Your task to perform on an android device: Add "dell alienware" to the cart on newegg.com, then select checkout. Image 0: 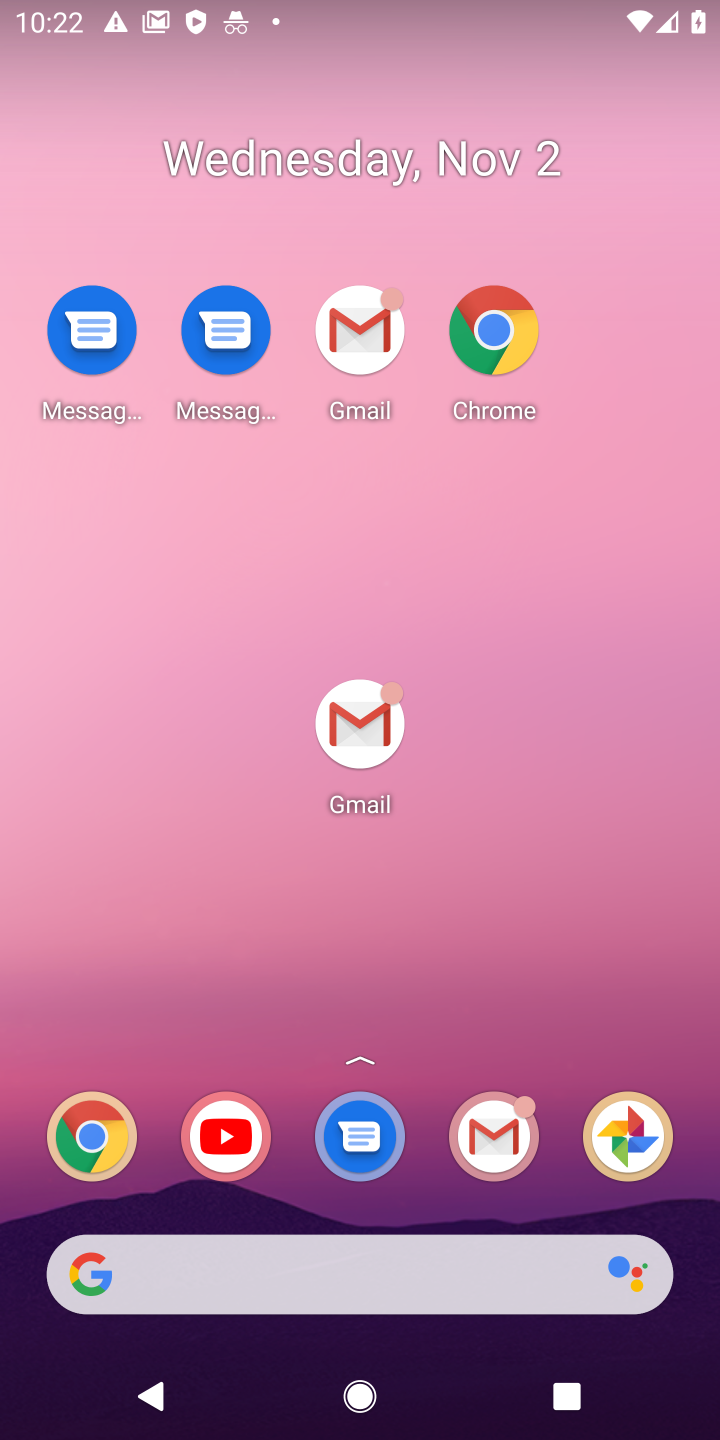
Step 0: drag from (339, 951) to (334, 176)
Your task to perform on an android device: Add "dell alienware" to the cart on newegg.com, then select checkout. Image 1: 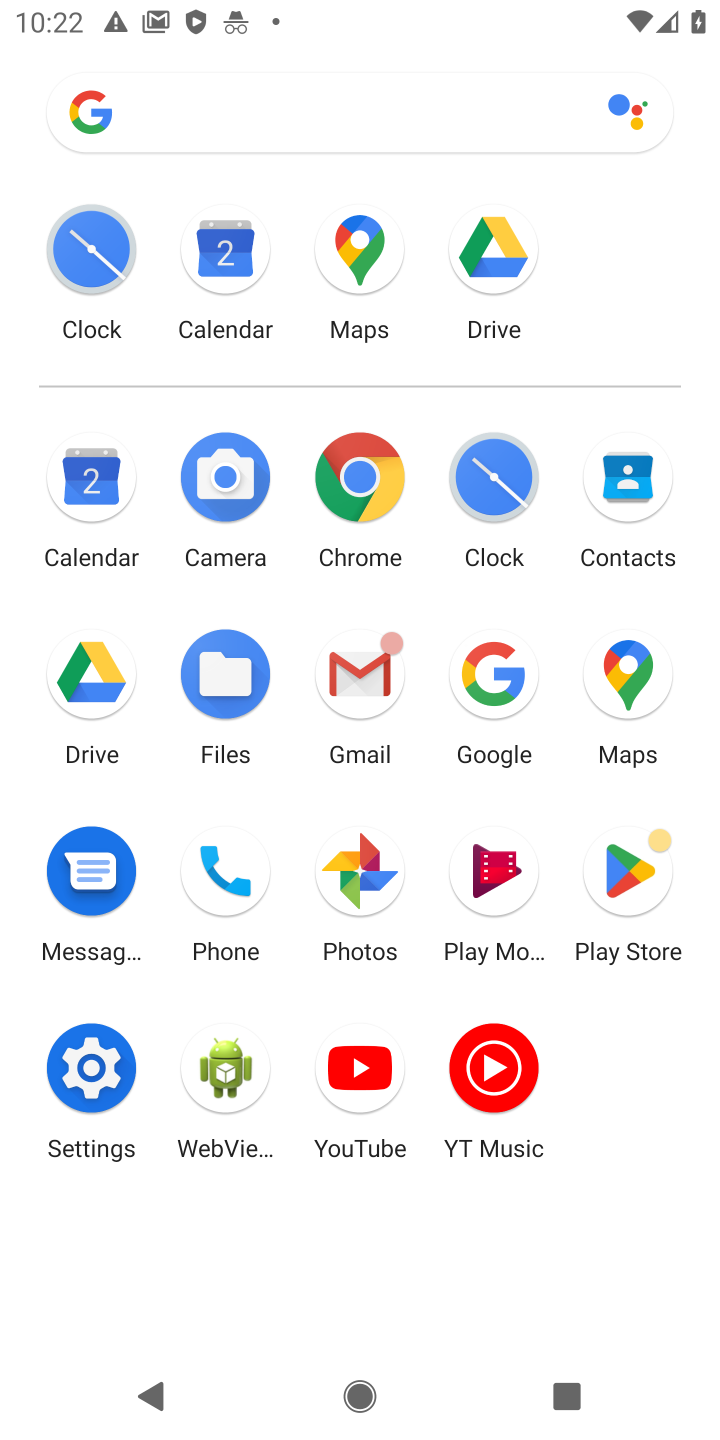
Step 1: click (503, 644)
Your task to perform on an android device: Add "dell alienware" to the cart on newegg.com, then select checkout. Image 2: 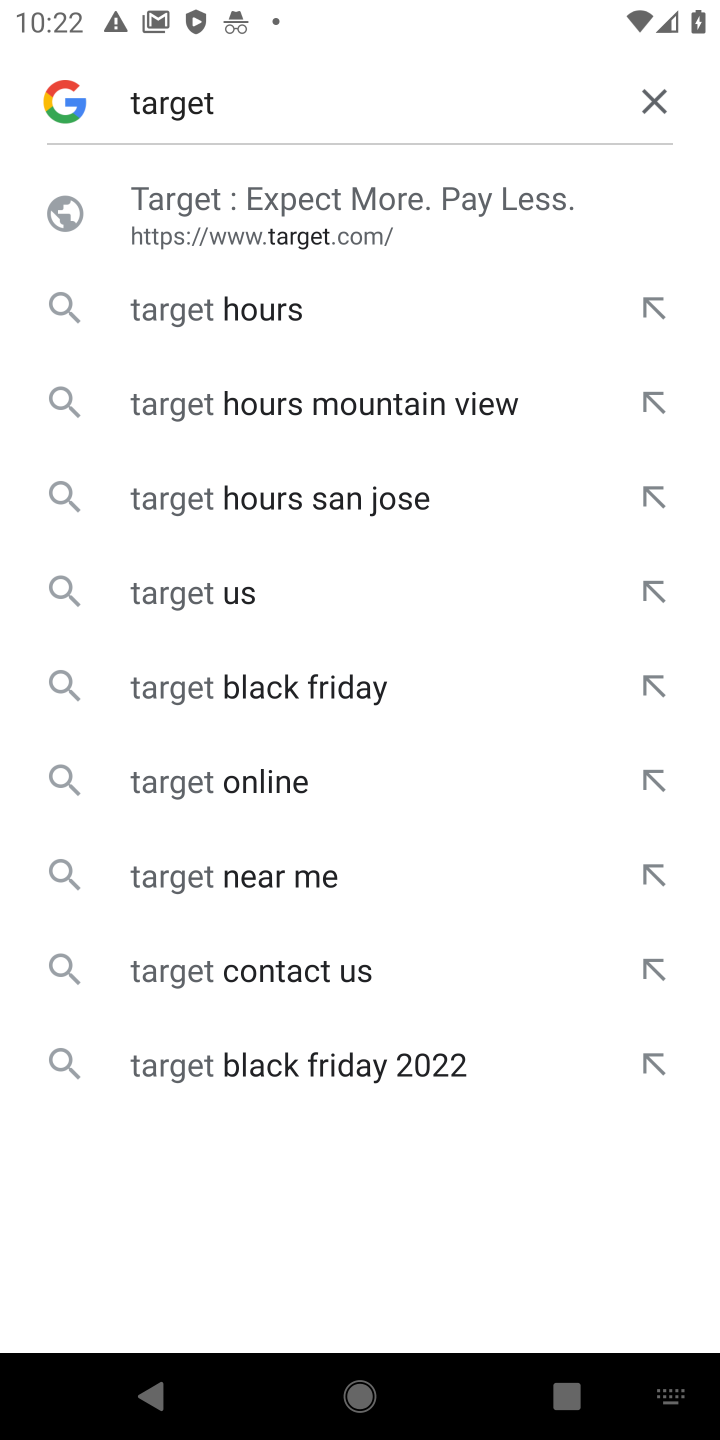
Step 2: click (660, 87)
Your task to perform on an android device: Add "dell alienware" to the cart on newegg.com, then select checkout. Image 3: 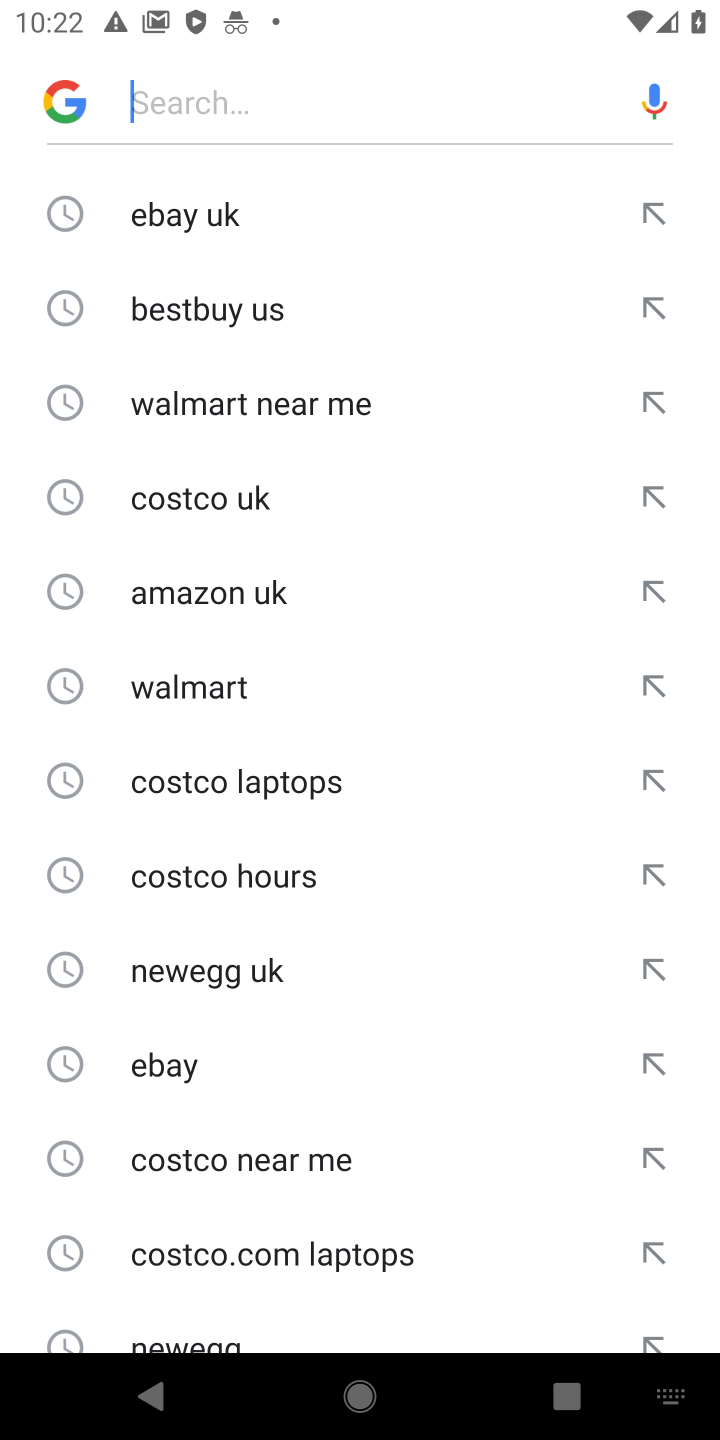
Step 3: click (369, 89)
Your task to perform on an android device: Add "dell alienware" to the cart on newegg.com, then select checkout. Image 4: 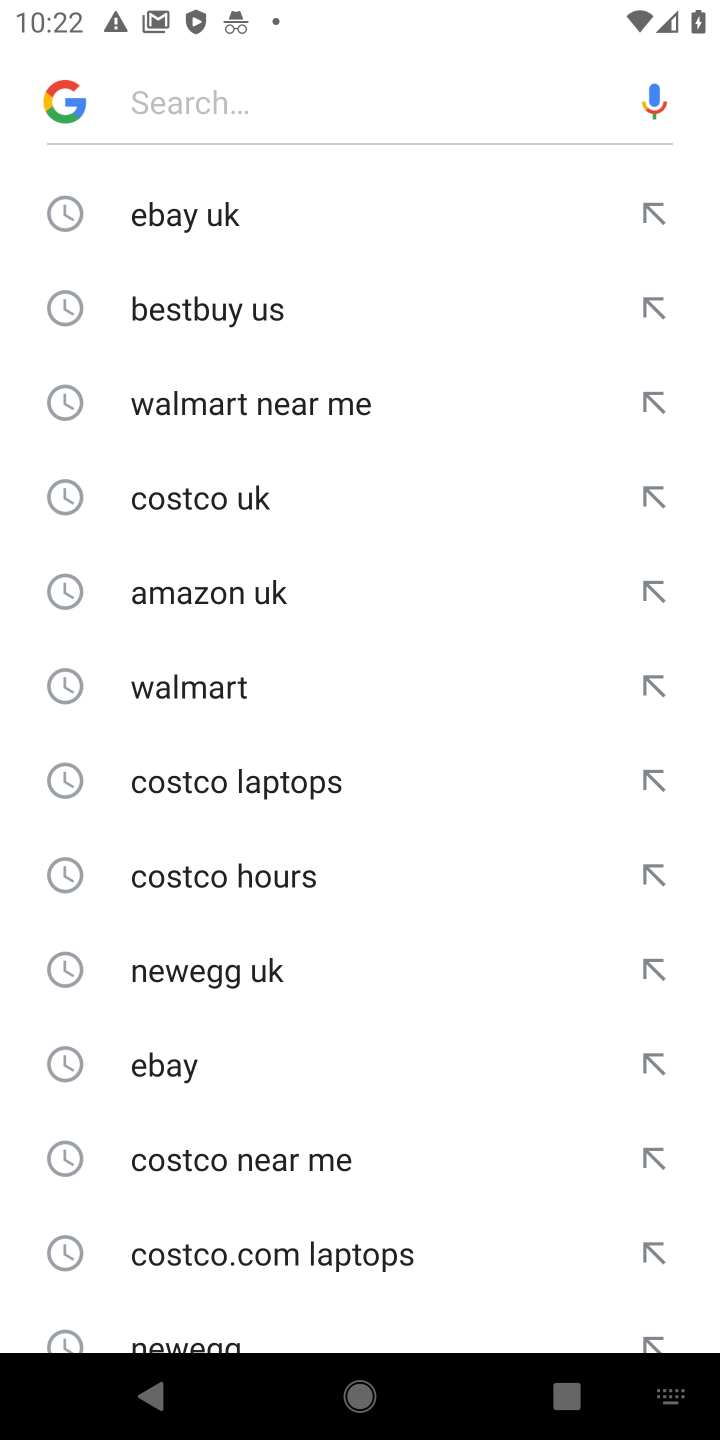
Step 4: type "newegg.com "
Your task to perform on an android device: Add "dell alienware" to the cart on newegg.com, then select checkout. Image 5: 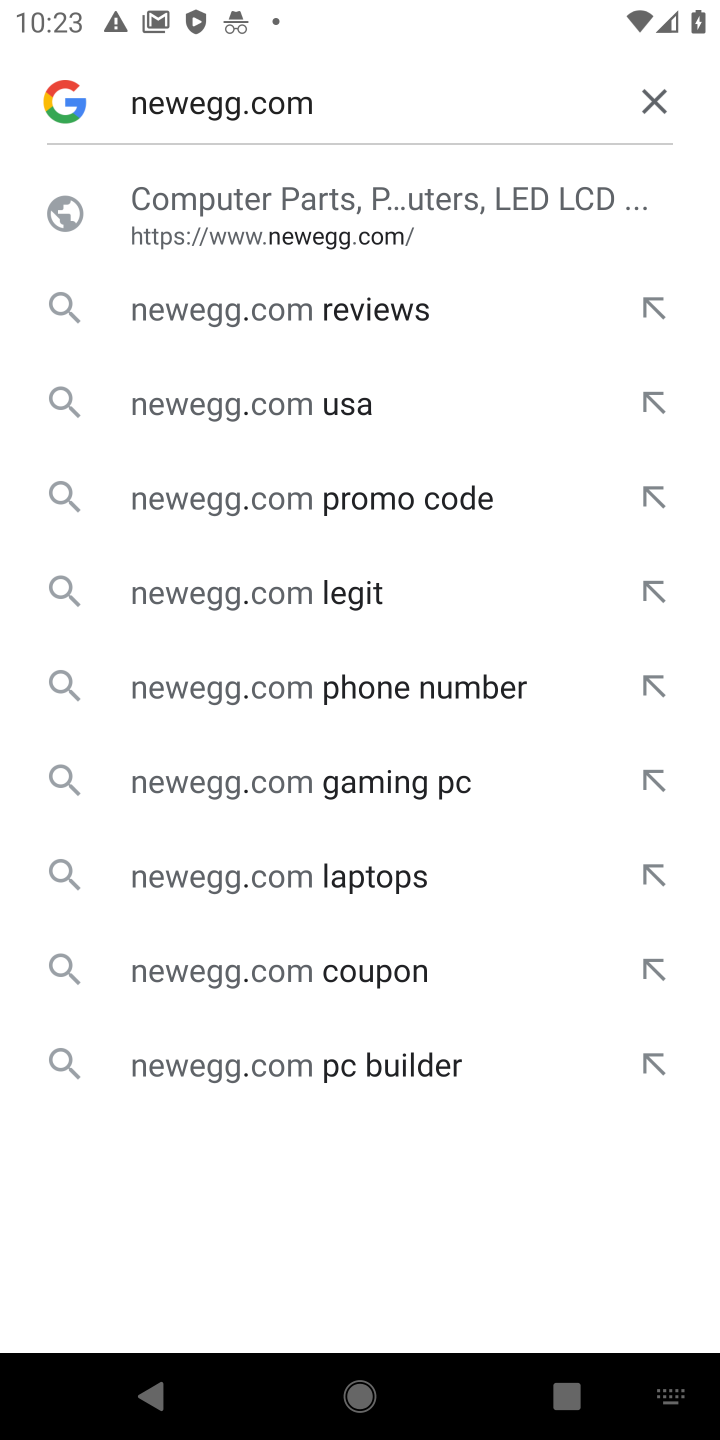
Step 5: click (290, 395)
Your task to perform on an android device: Add "dell alienware" to the cart on newegg.com, then select checkout. Image 6: 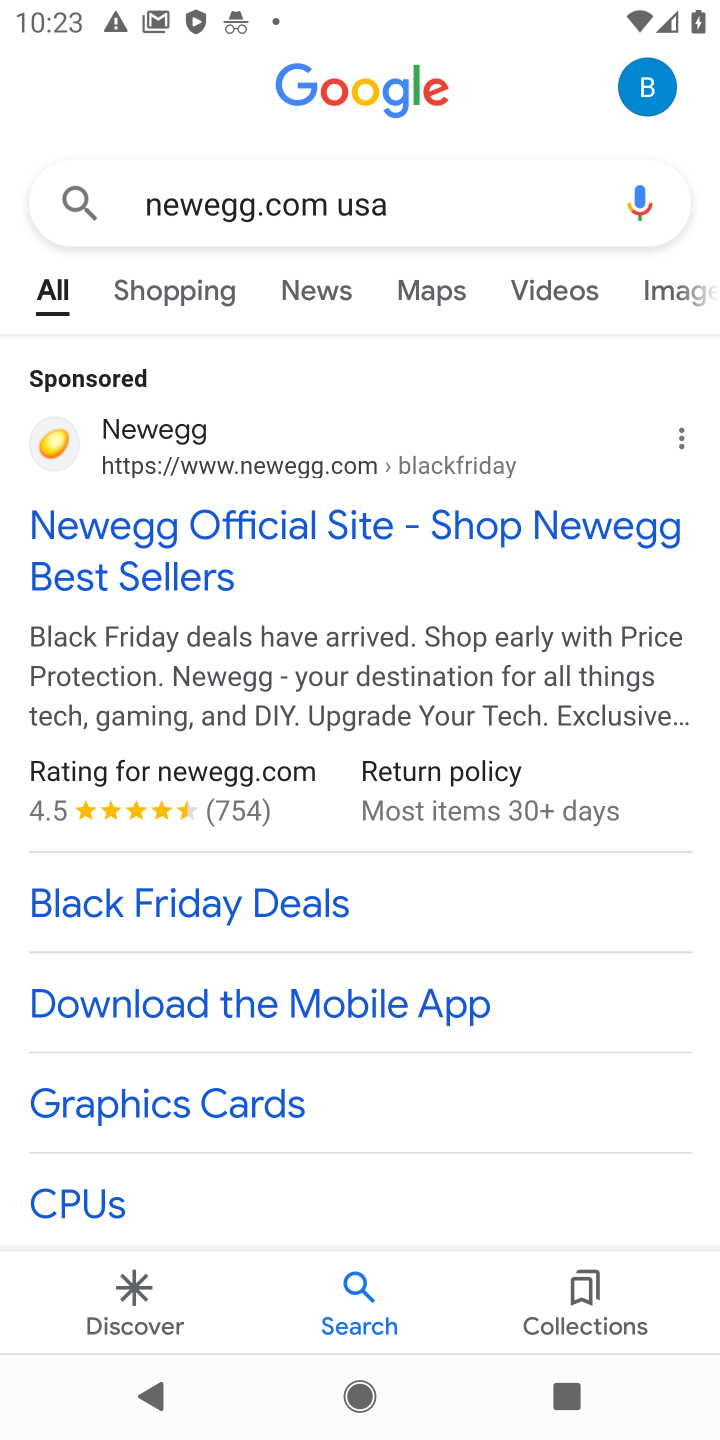
Step 6: click (56, 446)
Your task to perform on an android device: Add "dell alienware" to the cart on newegg.com, then select checkout. Image 7: 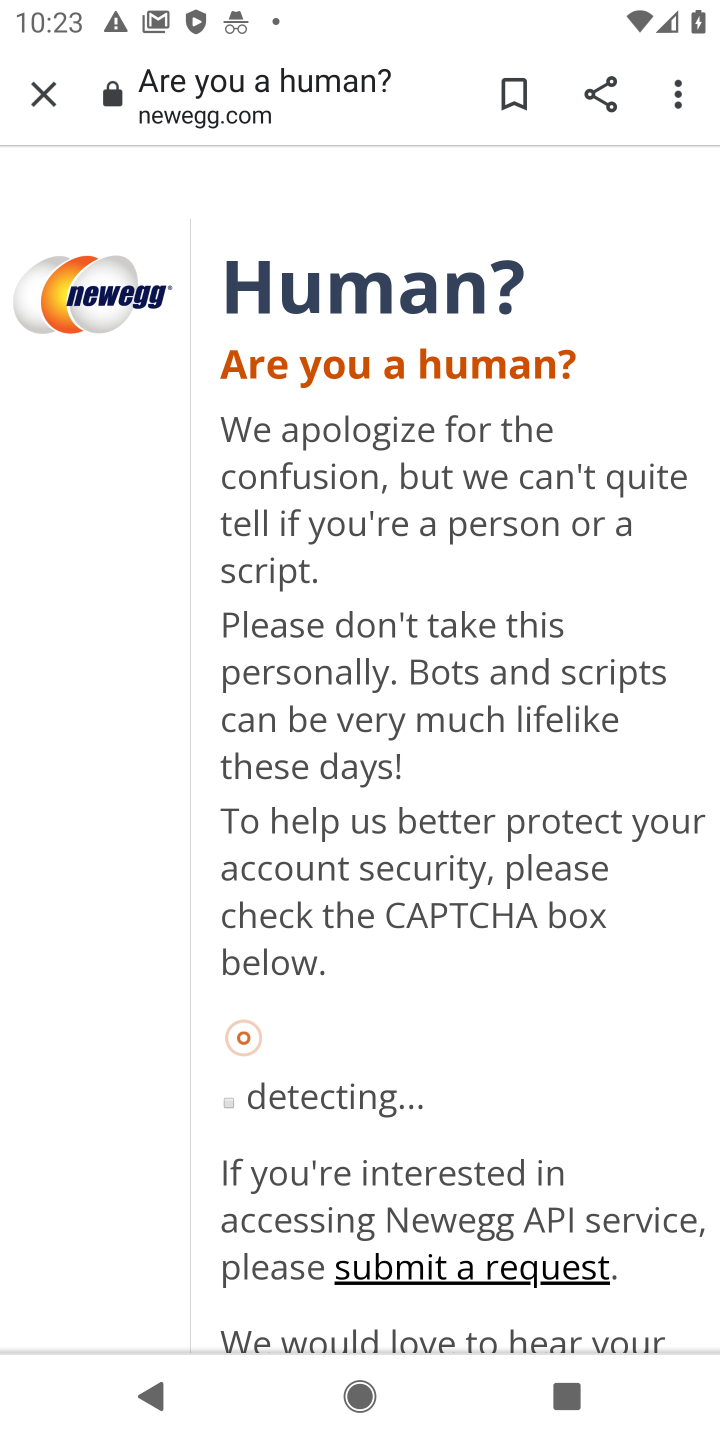
Step 7: press back button
Your task to perform on an android device: Add "dell alienware" to the cart on newegg.com, then select checkout. Image 8: 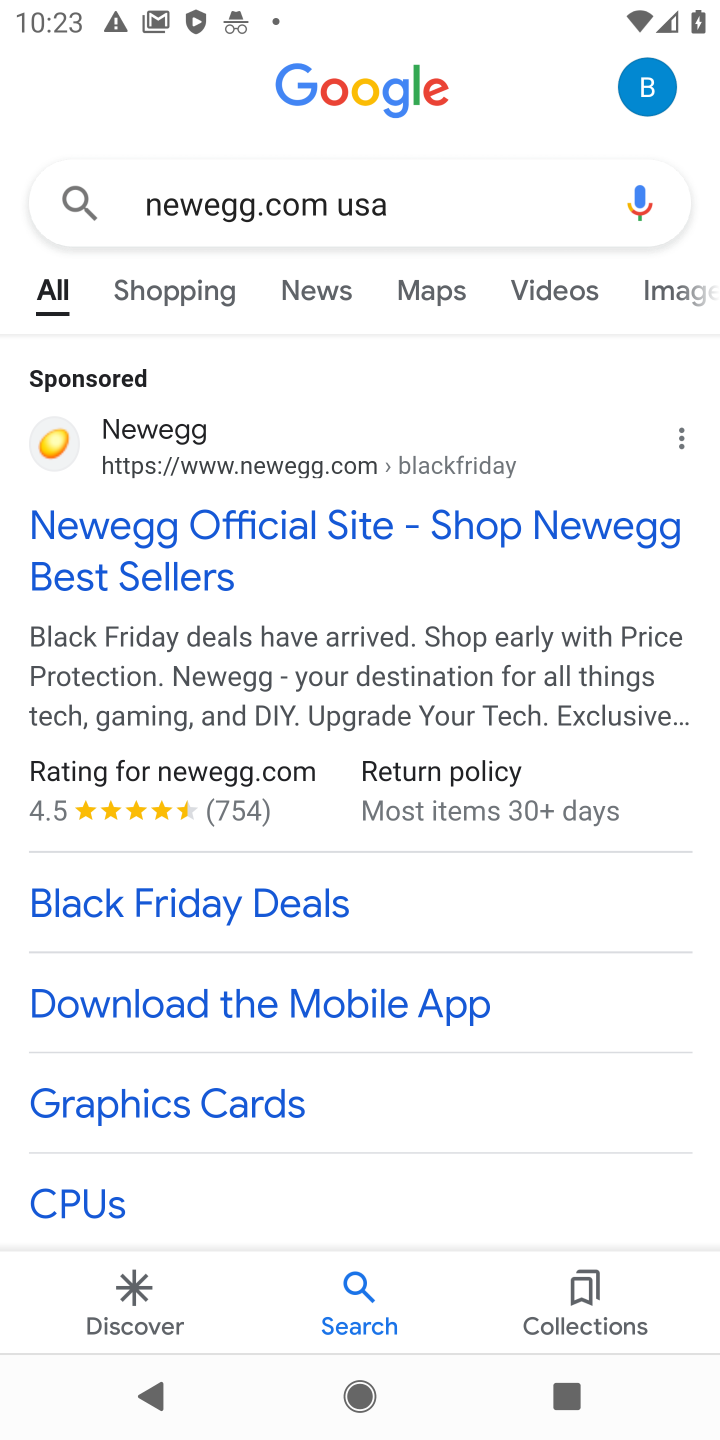
Step 8: drag from (257, 1241) to (360, 465)
Your task to perform on an android device: Add "dell alienware" to the cart on newegg.com, then select checkout. Image 9: 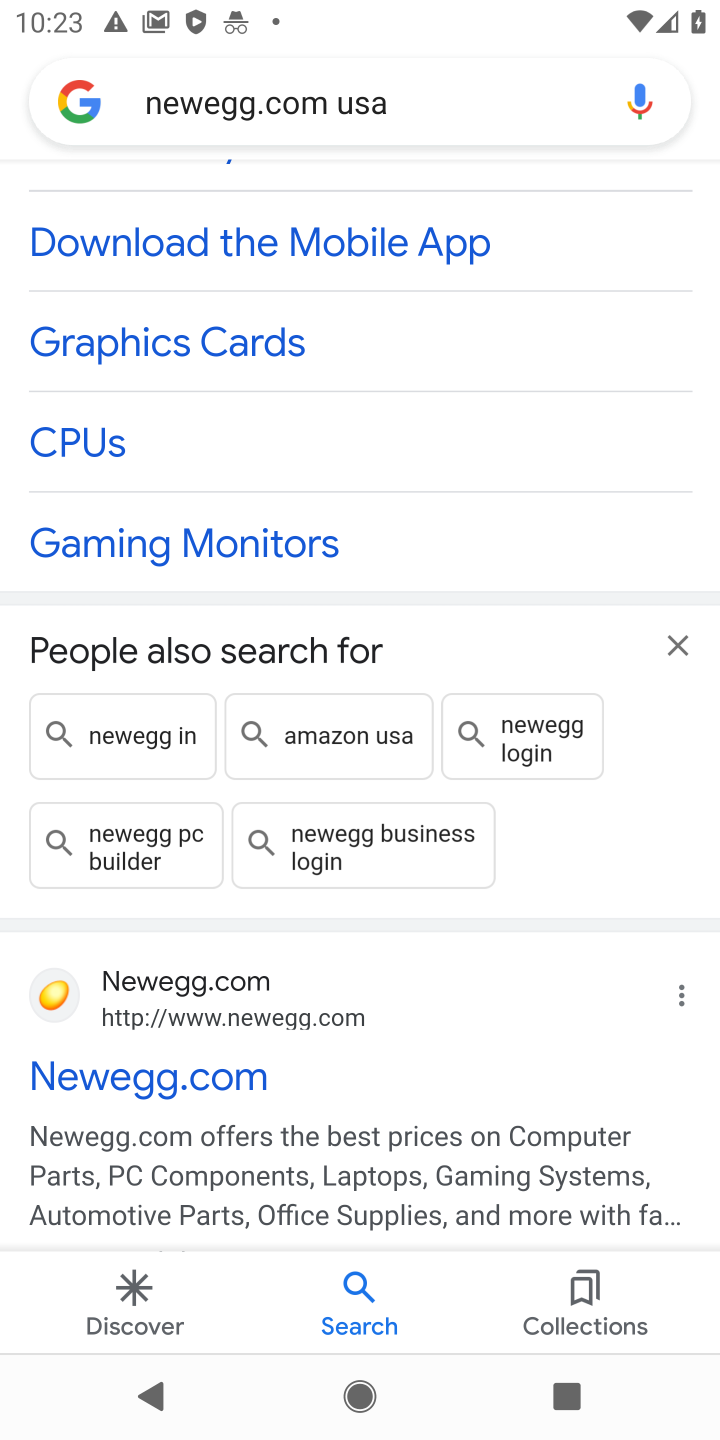
Step 9: click (44, 981)
Your task to perform on an android device: Add "dell alienware" to the cart on newegg.com, then select checkout. Image 10: 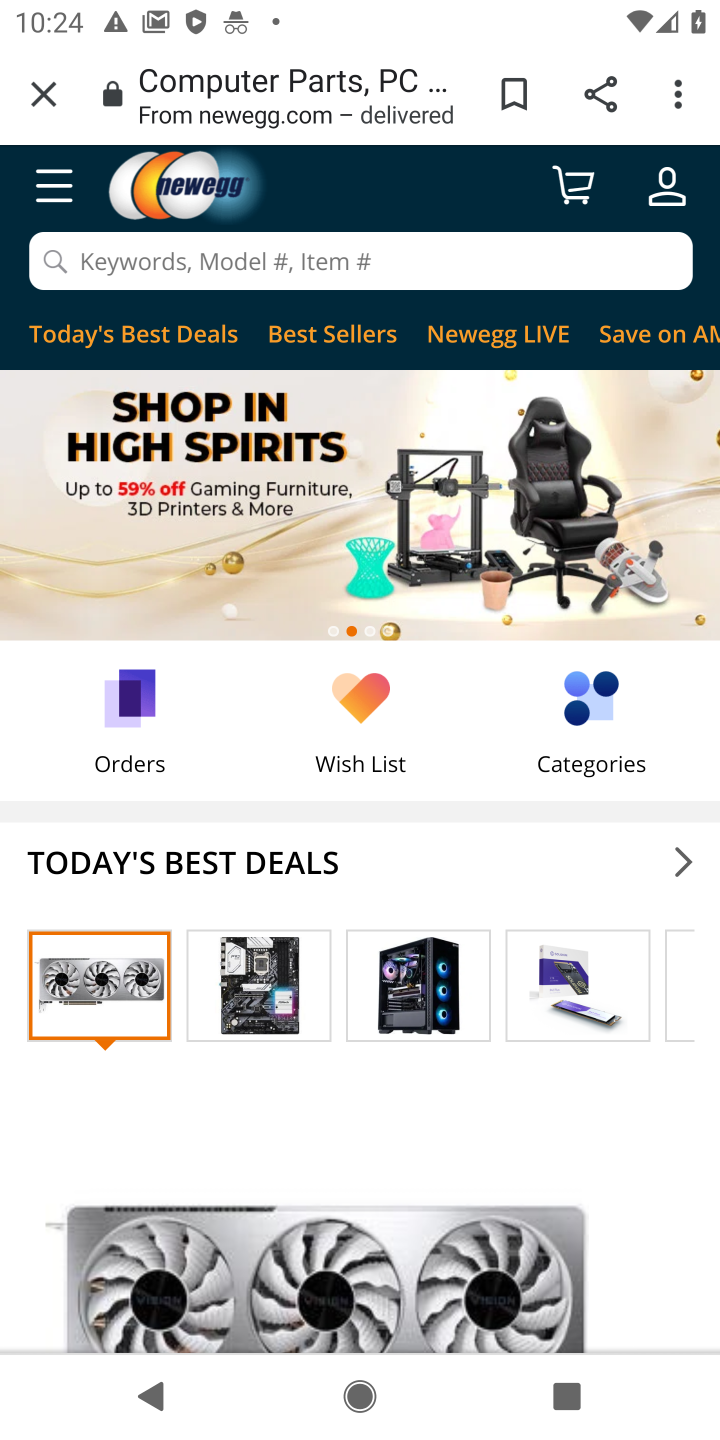
Step 10: click (448, 254)
Your task to perform on an android device: Add "dell alienware" to the cart on newegg.com, then select checkout. Image 11: 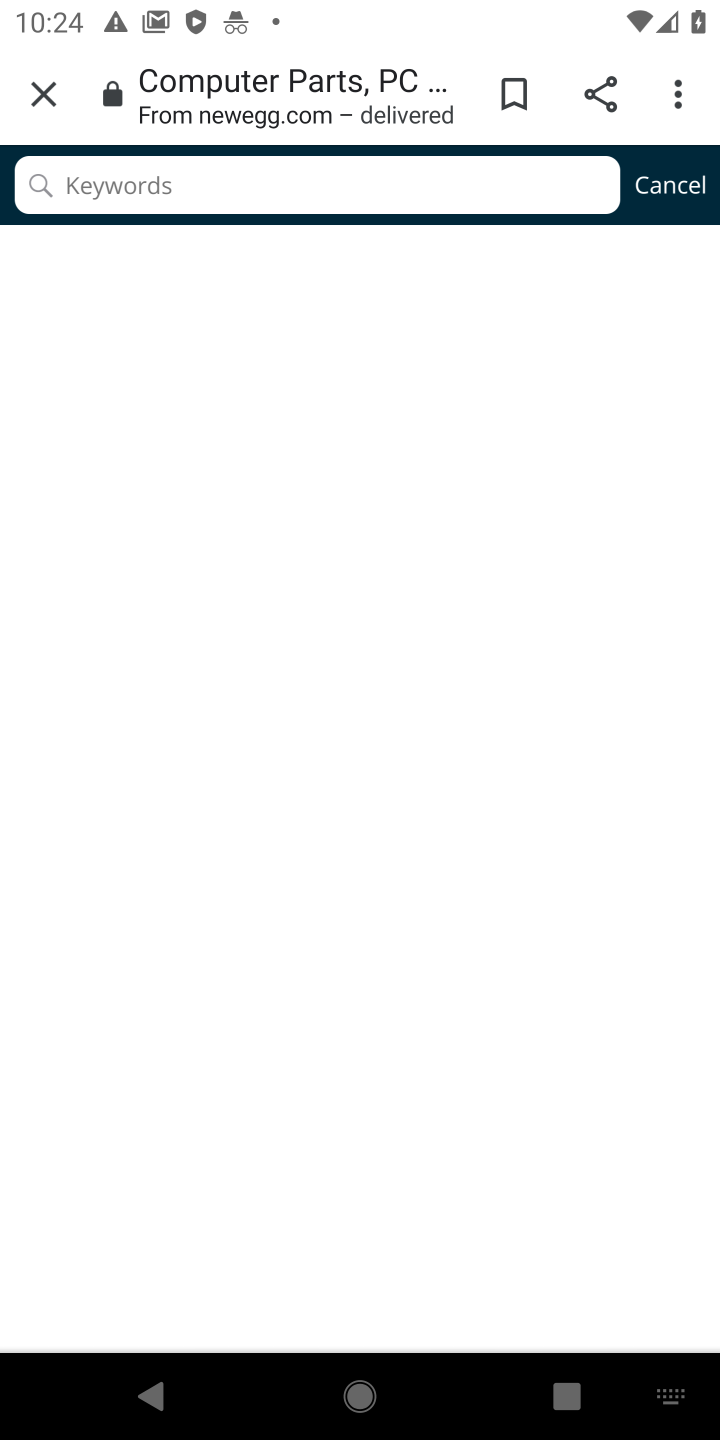
Step 11: click (355, 168)
Your task to perform on an android device: Add "dell alienware" to the cart on newegg.com, then select checkout. Image 12: 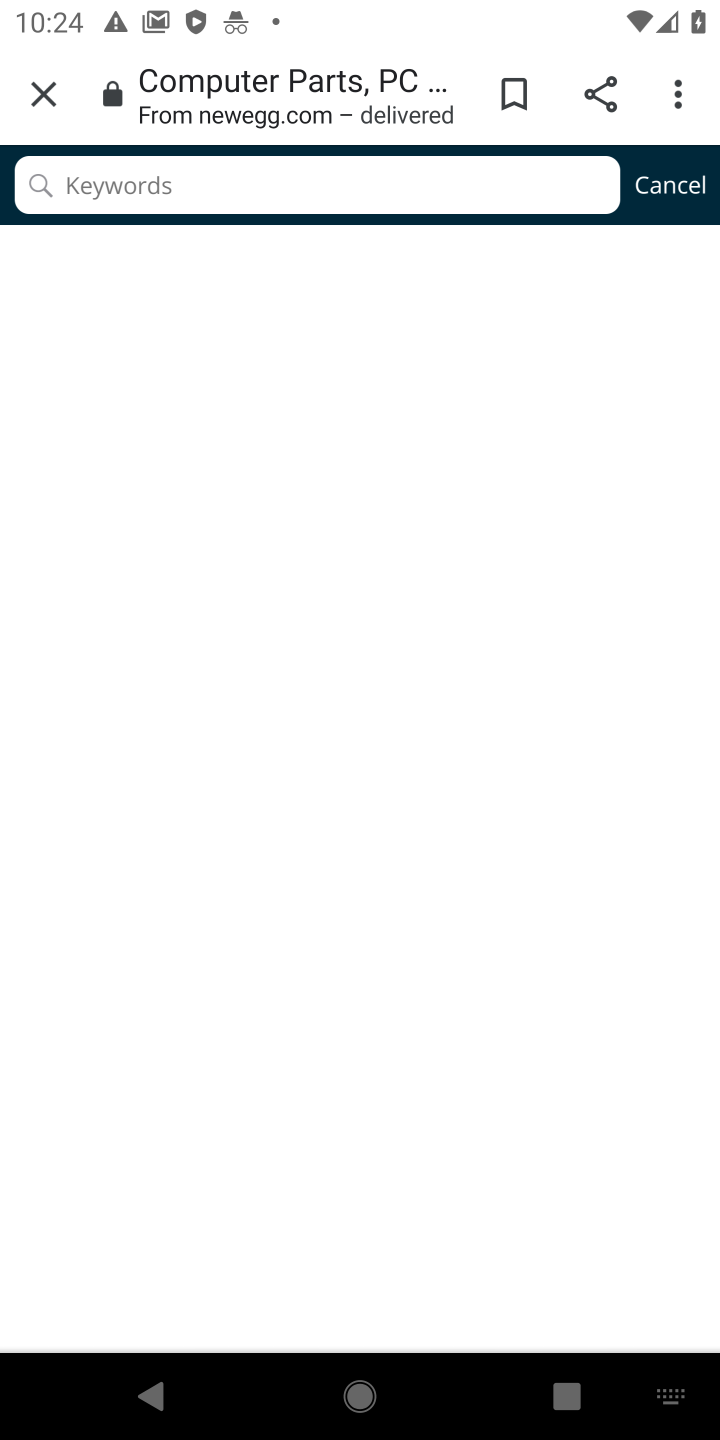
Step 12: type "dell alienware "
Your task to perform on an android device: Add "dell alienware" to the cart on newegg.com, then select checkout. Image 13: 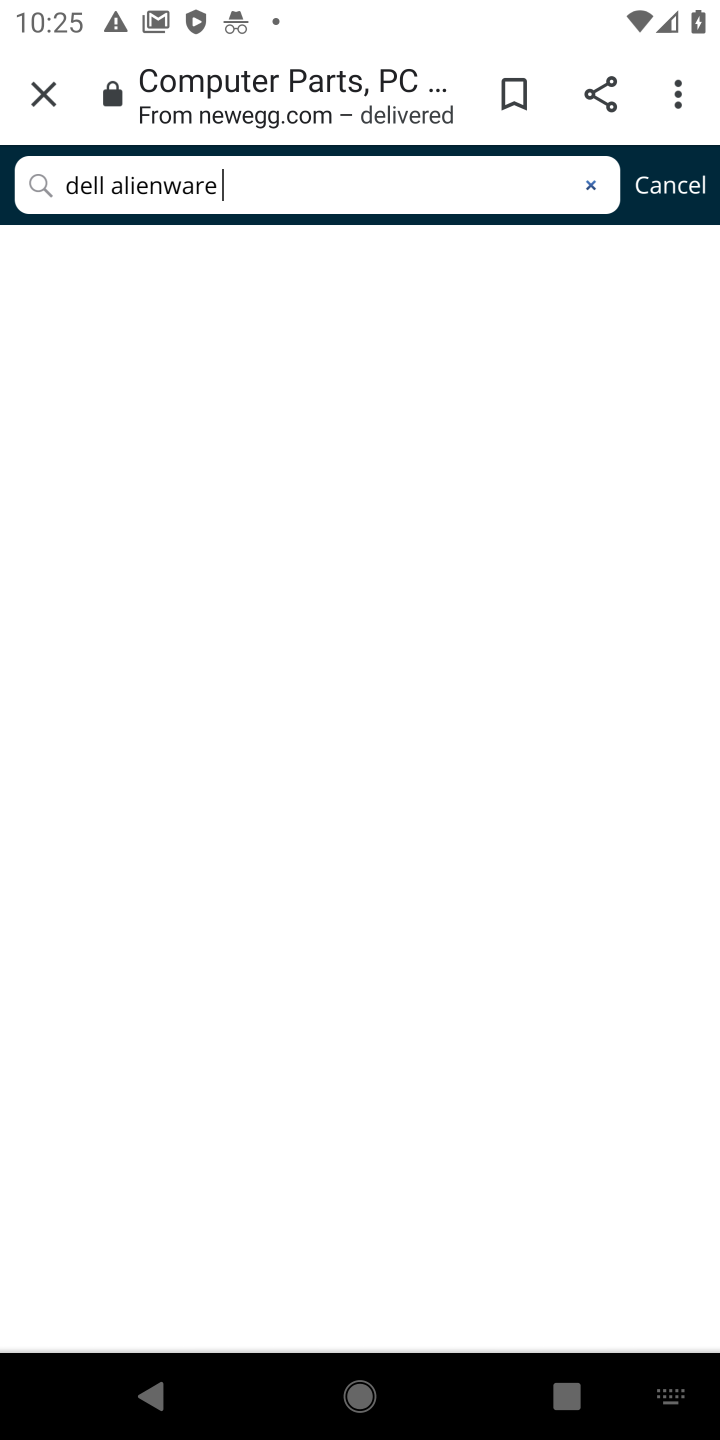
Step 13: click (403, 198)
Your task to perform on an android device: Add "dell alienware" to the cart on newegg.com, then select checkout. Image 14: 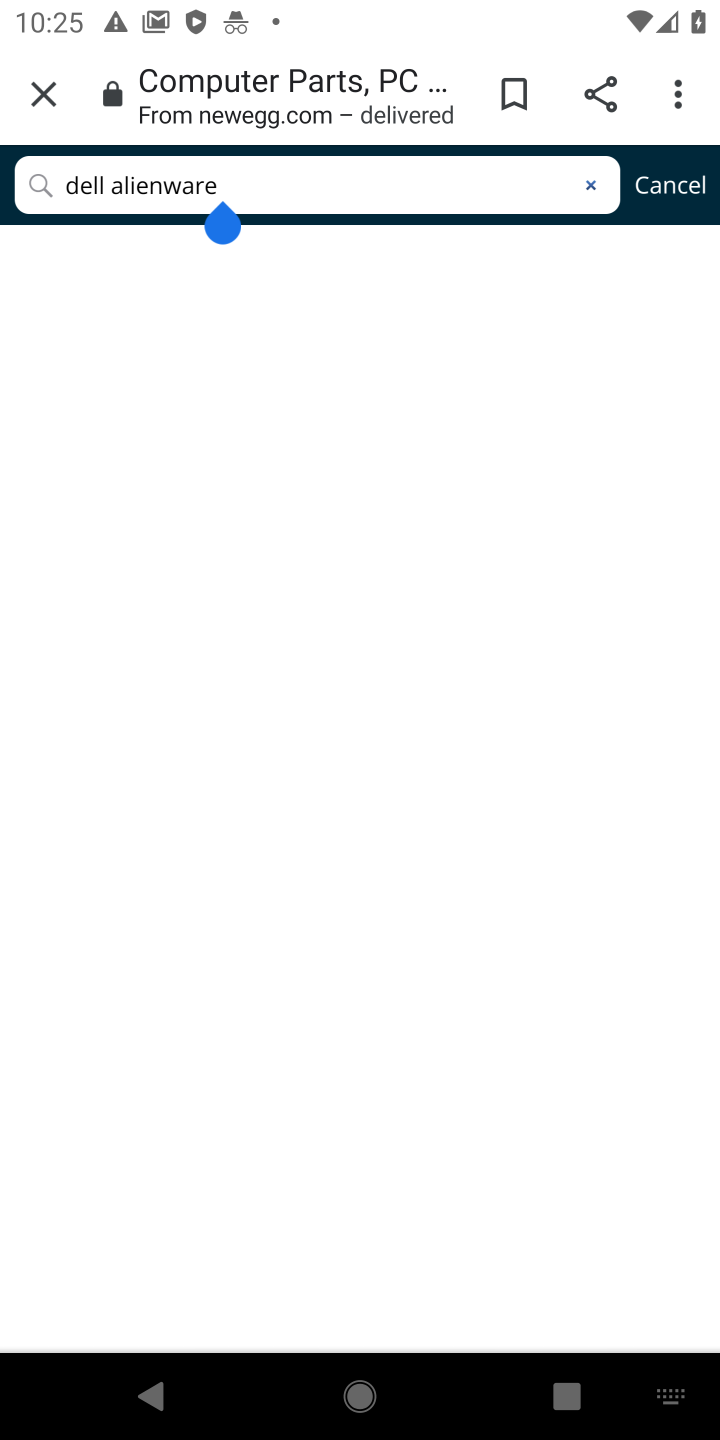
Step 14: press back button
Your task to perform on an android device: Add "dell alienware" to the cart on newegg.com, then select checkout. Image 15: 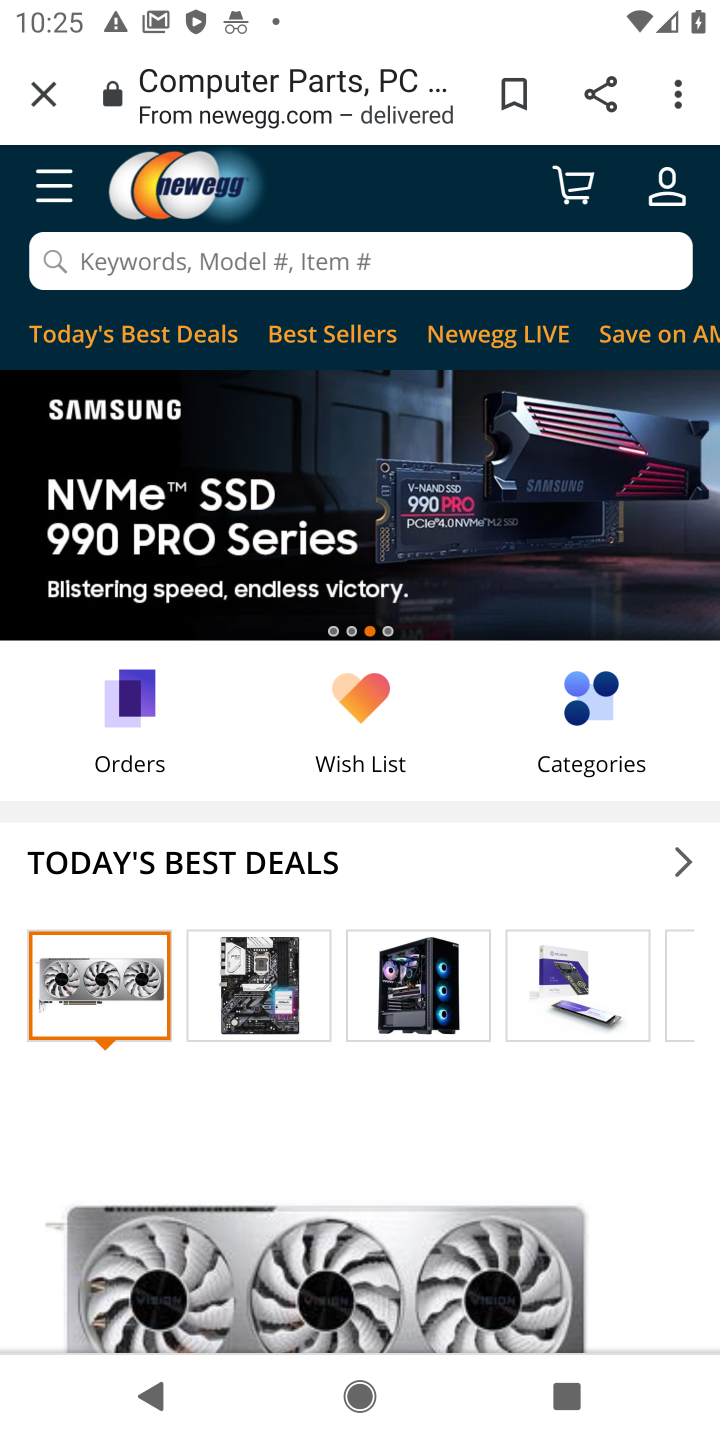
Step 15: drag from (295, 212) to (303, 1109)
Your task to perform on an android device: Add "dell alienware" to the cart on newegg.com, then select checkout. Image 16: 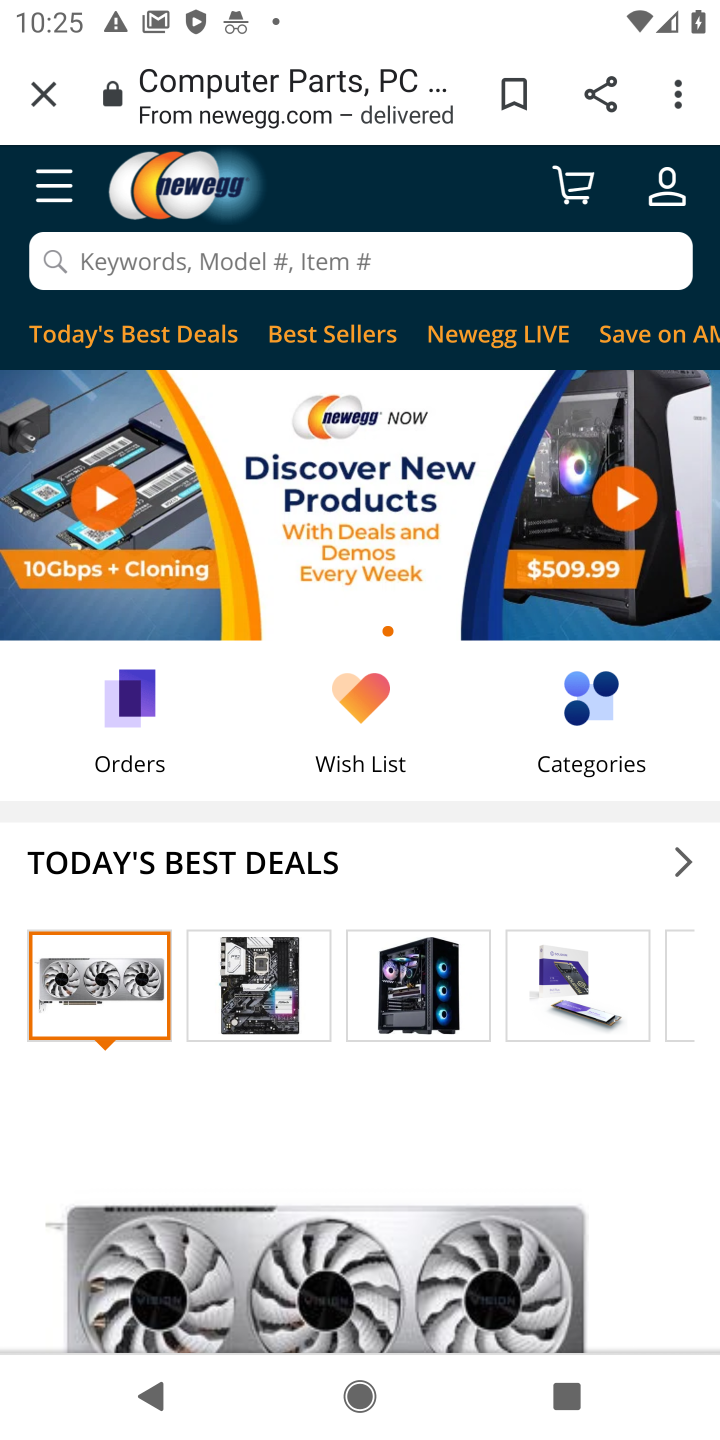
Step 16: click (226, 232)
Your task to perform on an android device: Add "dell alienware" to the cart on newegg.com, then select checkout. Image 17: 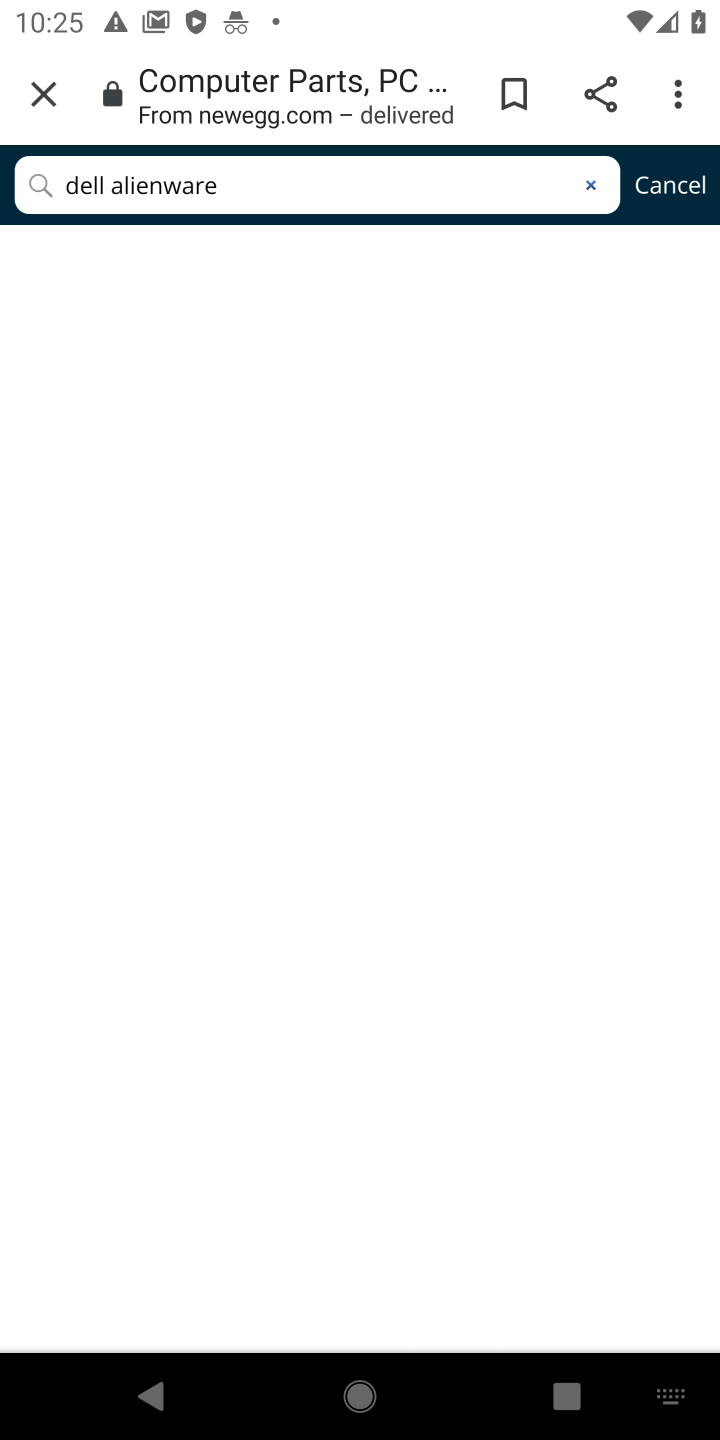
Step 17: click (525, 181)
Your task to perform on an android device: Add "dell alienware" to the cart on newegg.com, then select checkout. Image 18: 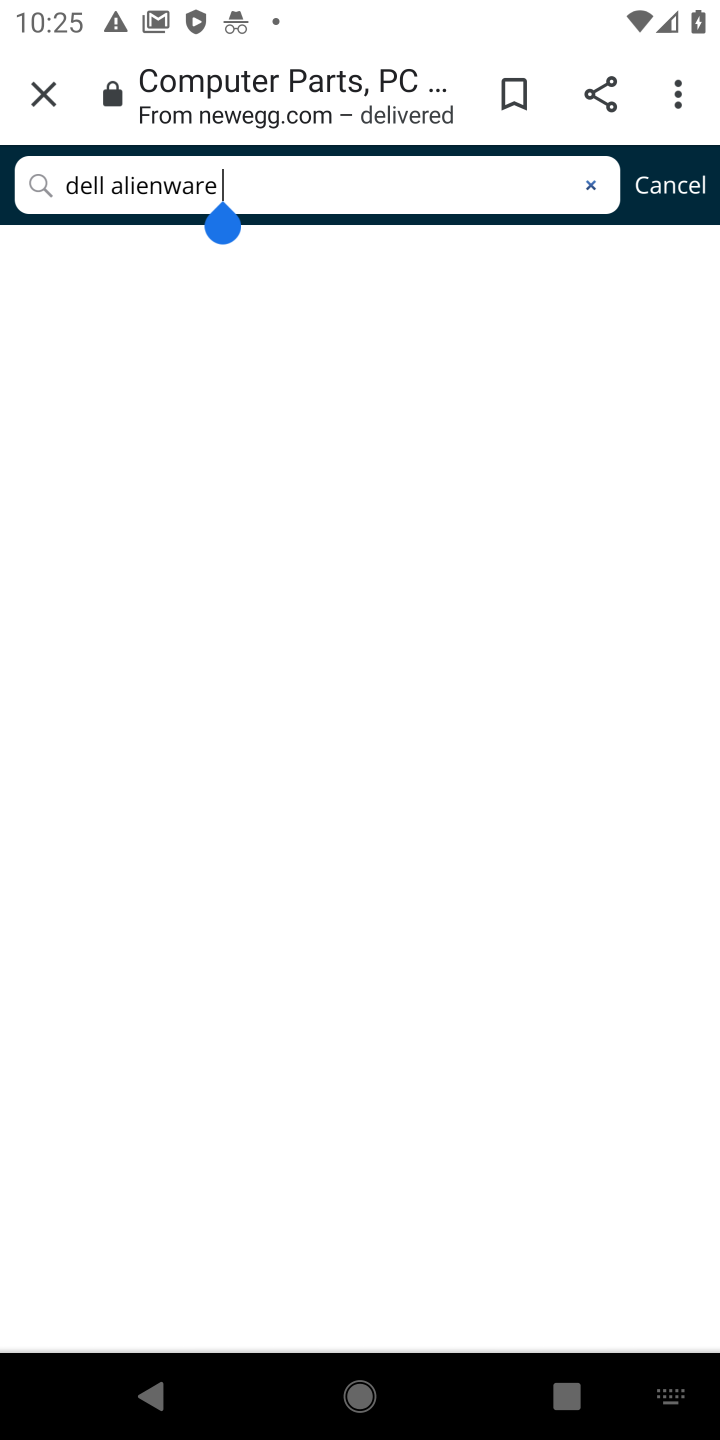
Step 18: task complete